Your task to perform on an android device: Go to Amazon Image 0: 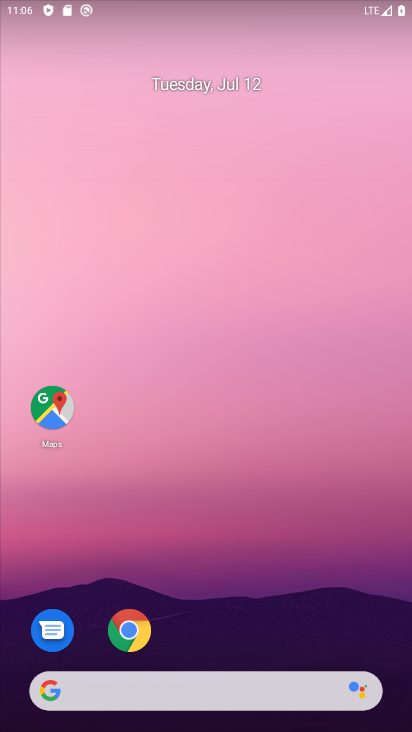
Step 0: drag from (379, 666) to (243, 40)
Your task to perform on an android device: Go to Amazon Image 1: 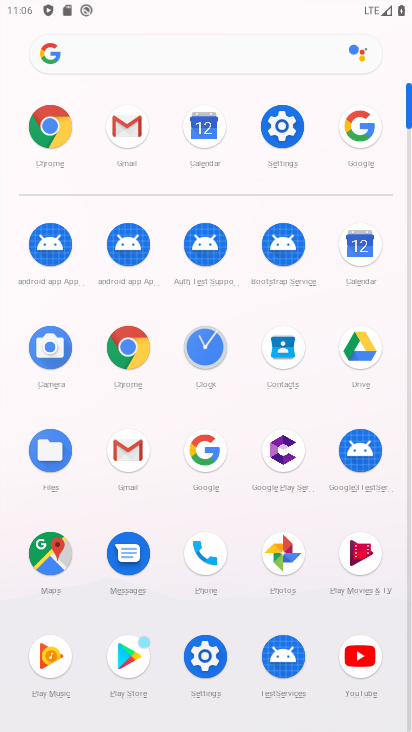
Step 1: click (364, 135)
Your task to perform on an android device: Go to Amazon Image 2: 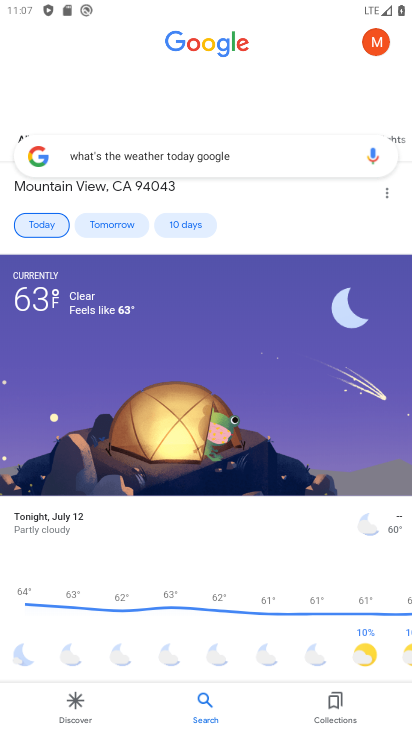
Step 2: press back button
Your task to perform on an android device: Go to Amazon Image 3: 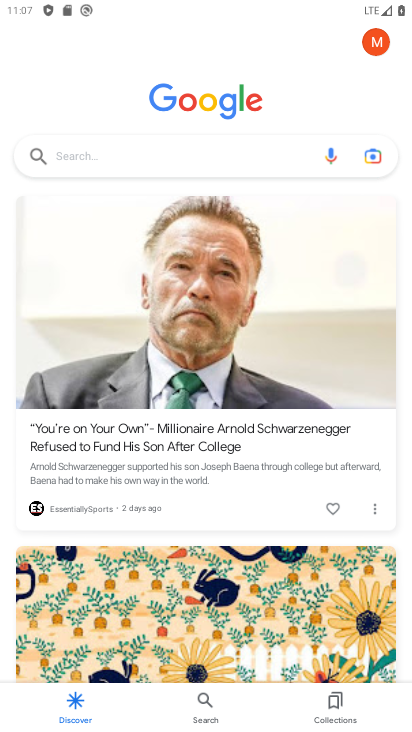
Step 3: click (110, 160)
Your task to perform on an android device: Go to Amazon Image 4: 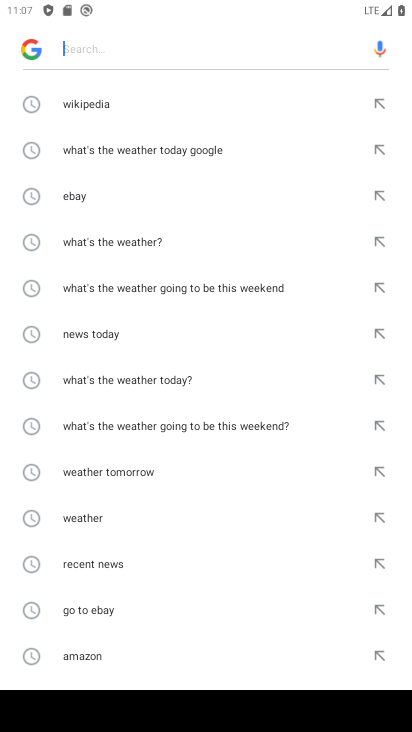
Step 4: click (92, 661)
Your task to perform on an android device: Go to Amazon Image 5: 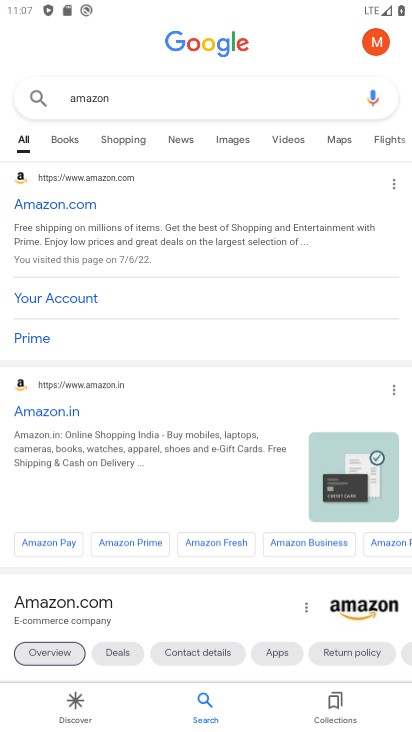
Step 5: task complete